Your task to perform on an android device: allow cookies in the chrome app Image 0: 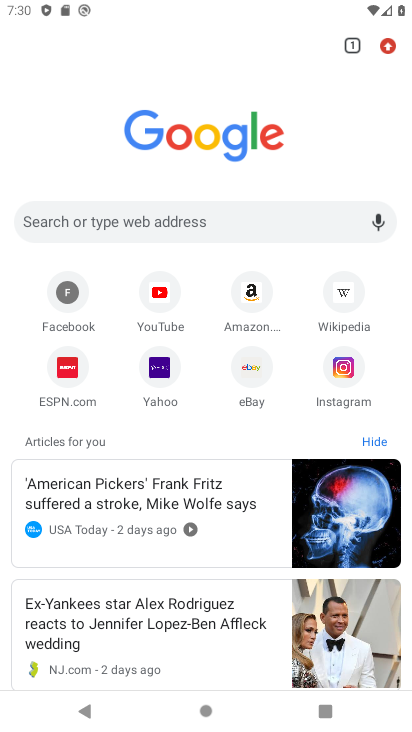
Step 0: click (386, 47)
Your task to perform on an android device: allow cookies in the chrome app Image 1: 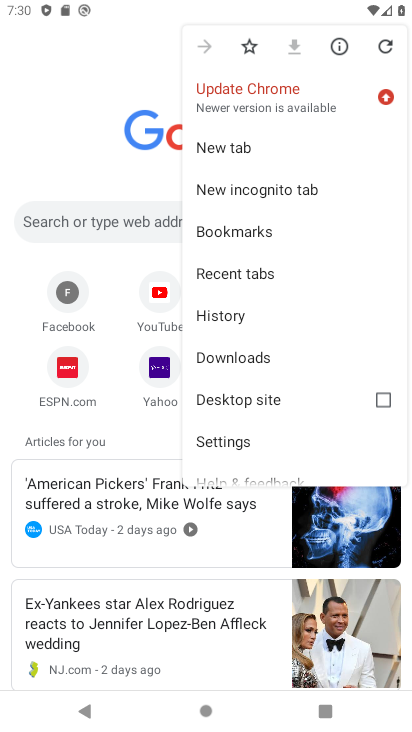
Step 1: click (236, 449)
Your task to perform on an android device: allow cookies in the chrome app Image 2: 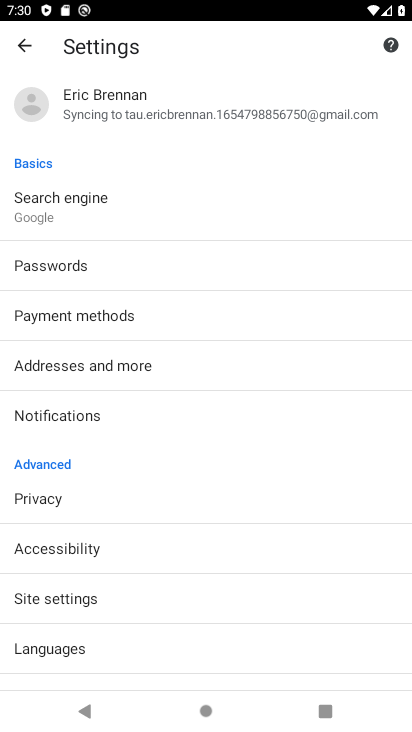
Step 2: click (60, 613)
Your task to perform on an android device: allow cookies in the chrome app Image 3: 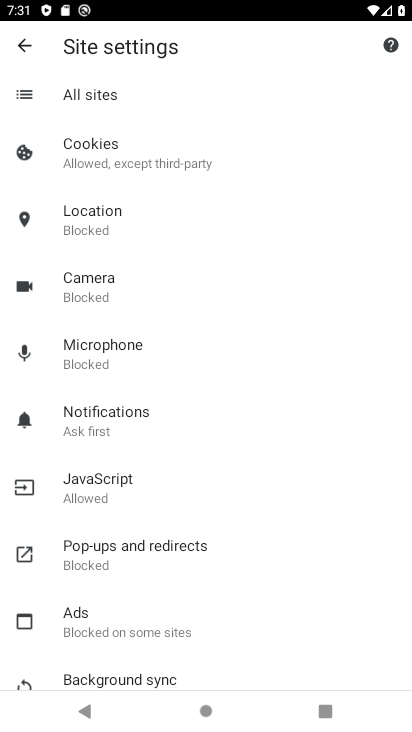
Step 3: click (178, 158)
Your task to perform on an android device: allow cookies in the chrome app Image 4: 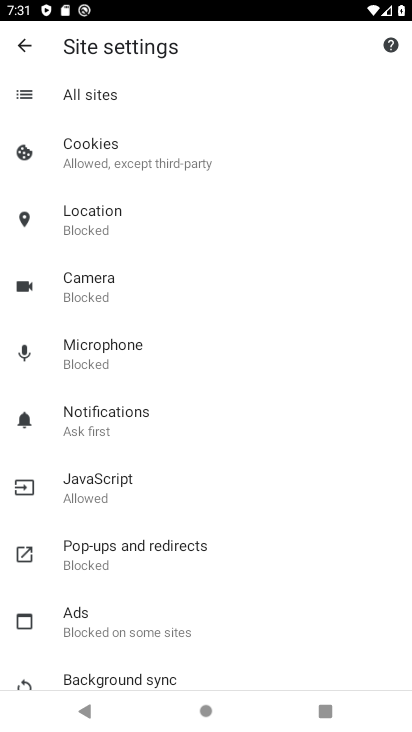
Step 4: click (178, 158)
Your task to perform on an android device: allow cookies in the chrome app Image 5: 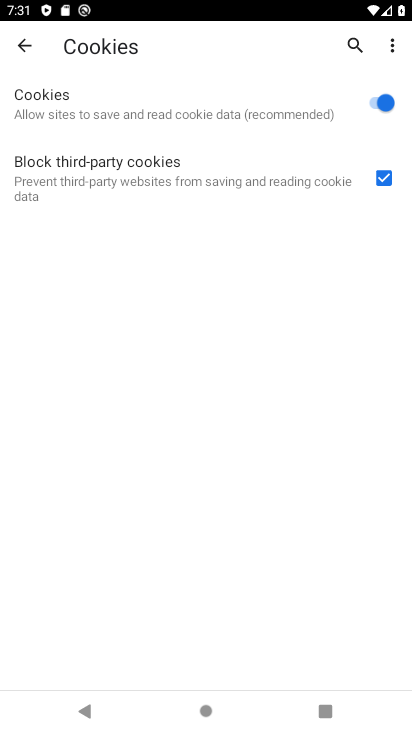
Step 5: task complete